Your task to perform on an android device: turn off notifications in google photos Image 0: 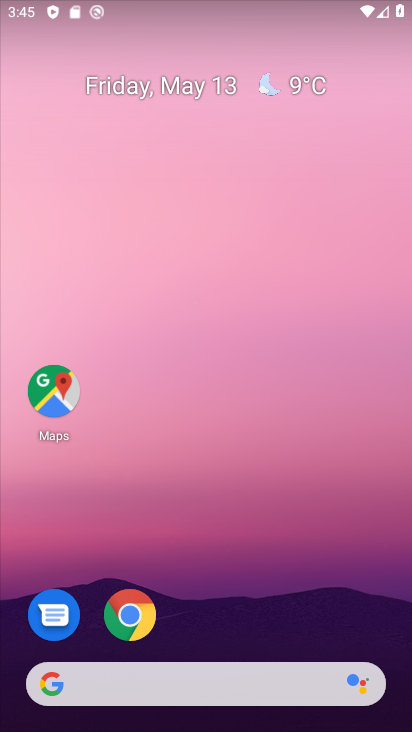
Step 0: drag from (220, 527) to (289, 101)
Your task to perform on an android device: turn off notifications in google photos Image 1: 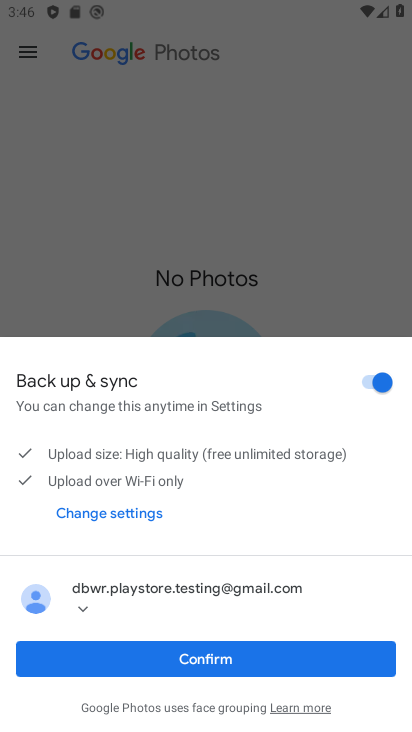
Step 1: click (202, 669)
Your task to perform on an android device: turn off notifications in google photos Image 2: 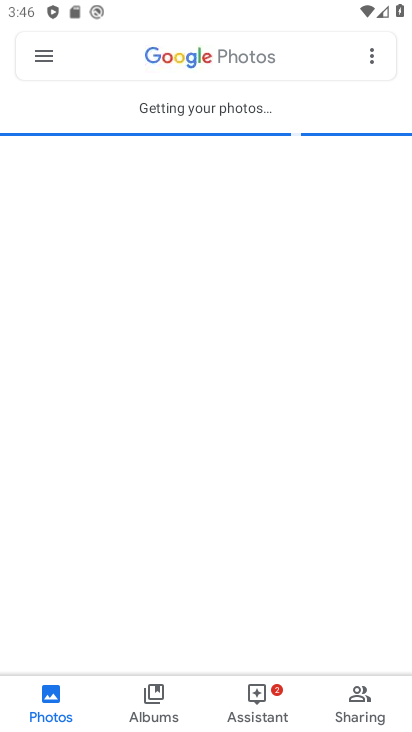
Step 2: click (51, 709)
Your task to perform on an android device: turn off notifications in google photos Image 3: 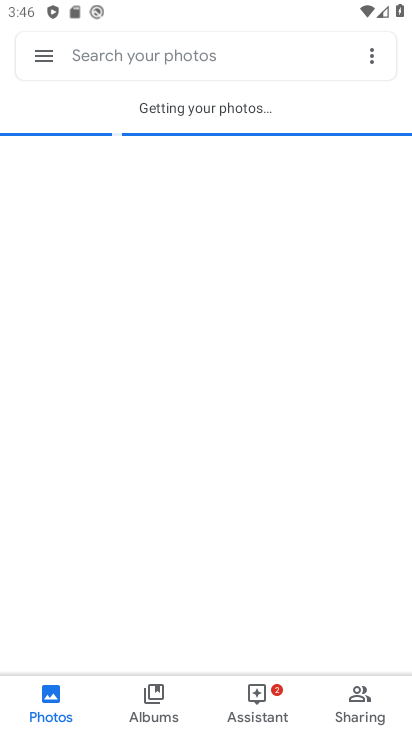
Step 3: task complete